Your task to perform on an android device: Search for sushi restaurants on Maps Image 0: 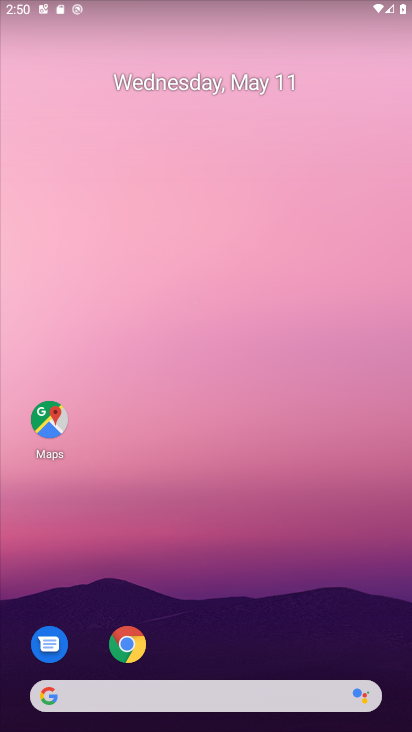
Step 0: drag from (172, 667) to (90, 22)
Your task to perform on an android device: Search for sushi restaurants on Maps Image 1: 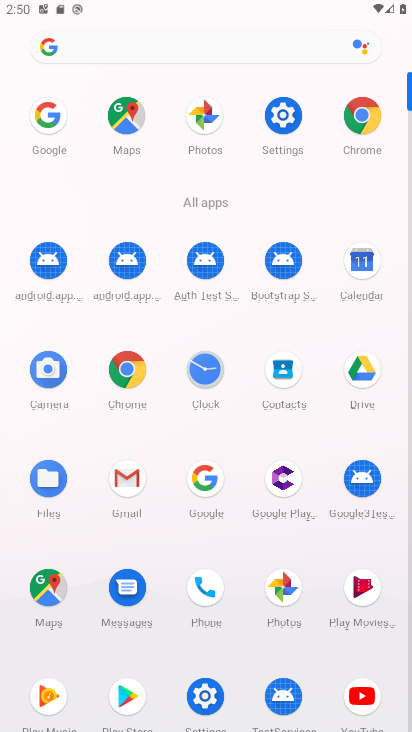
Step 1: click (53, 576)
Your task to perform on an android device: Search for sushi restaurants on Maps Image 2: 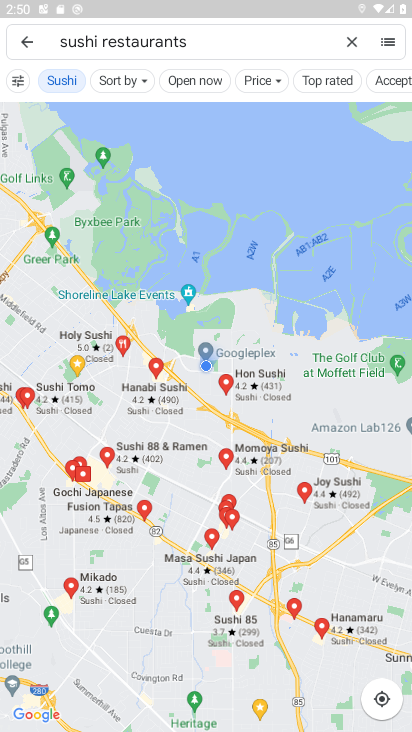
Step 2: task complete